Your task to perform on an android device: turn off sleep mode Image 0: 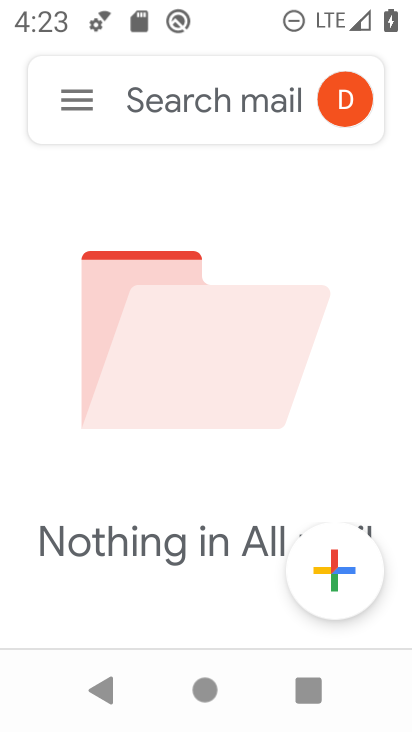
Step 0: press home button
Your task to perform on an android device: turn off sleep mode Image 1: 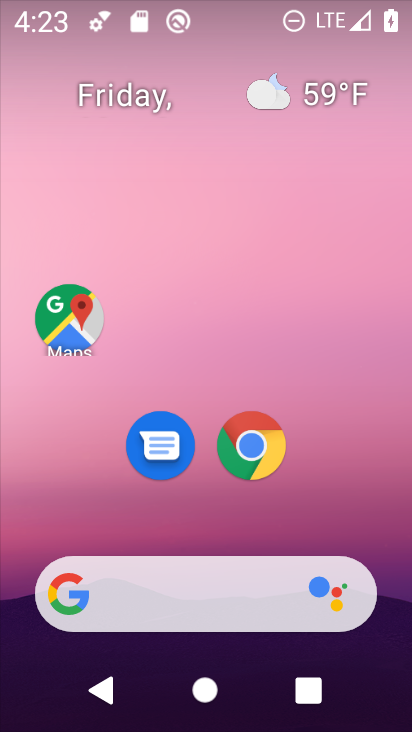
Step 1: click (354, 165)
Your task to perform on an android device: turn off sleep mode Image 2: 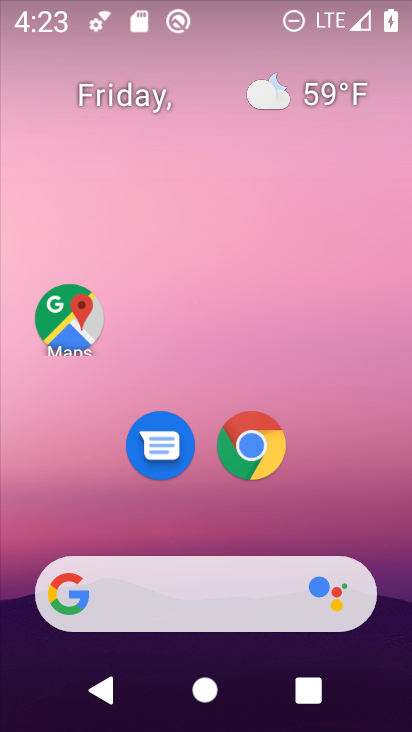
Step 2: drag from (388, 582) to (348, 47)
Your task to perform on an android device: turn off sleep mode Image 3: 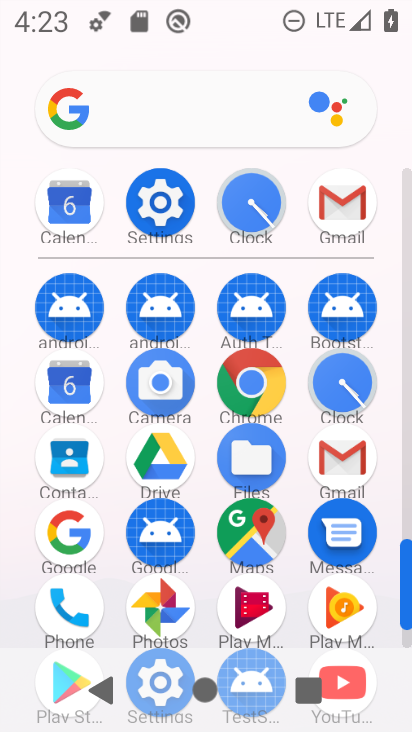
Step 3: drag from (407, 521) to (405, 446)
Your task to perform on an android device: turn off sleep mode Image 4: 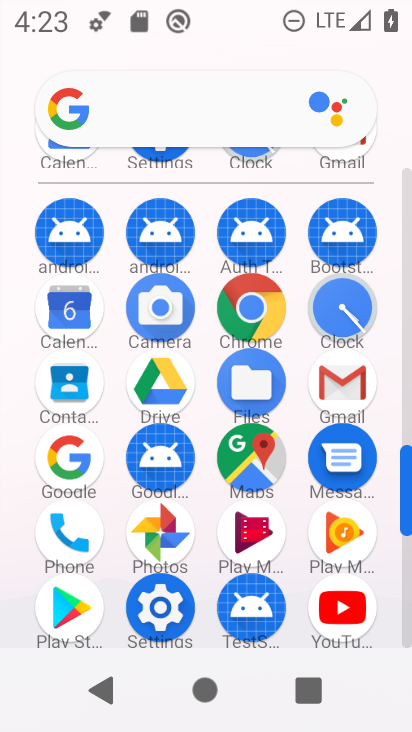
Step 4: click (160, 609)
Your task to perform on an android device: turn off sleep mode Image 5: 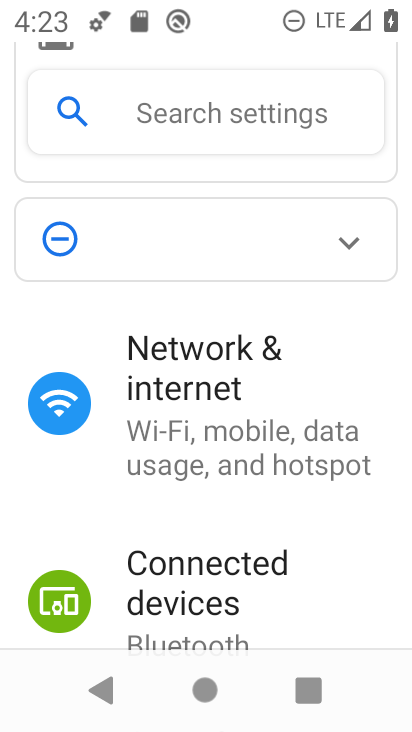
Step 5: drag from (364, 586) to (353, 227)
Your task to perform on an android device: turn off sleep mode Image 6: 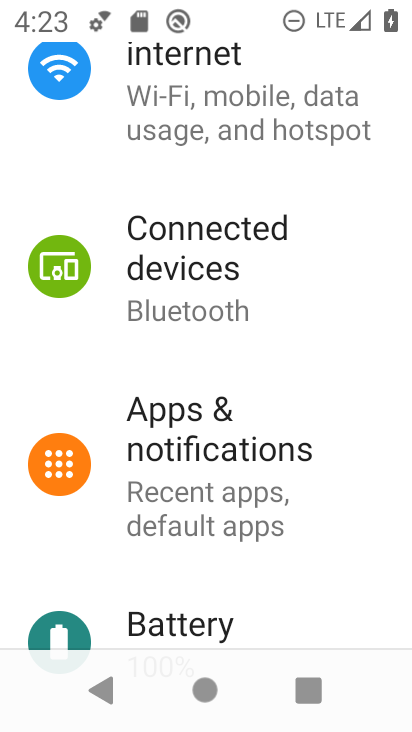
Step 6: drag from (337, 565) to (331, 185)
Your task to perform on an android device: turn off sleep mode Image 7: 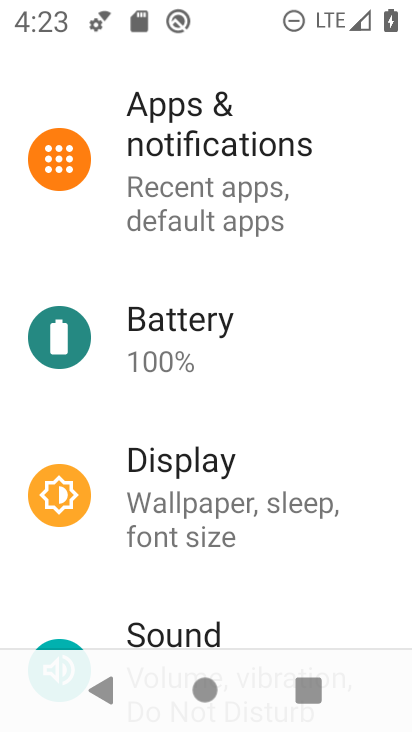
Step 7: click (160, 510)
Your task to perform on an android device: turn off sleep mode Image 8: 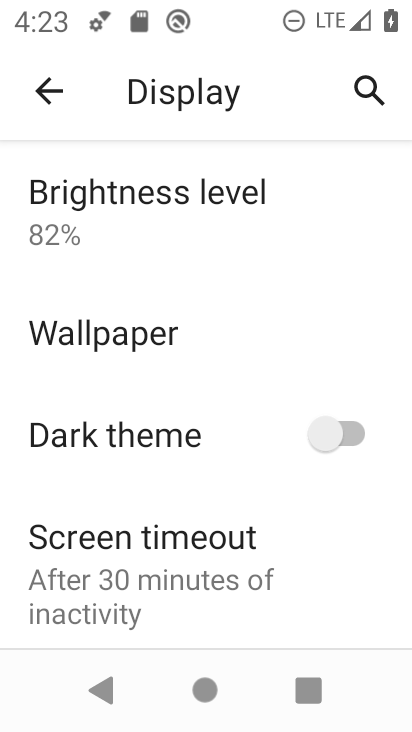
Step 8: drag from (269, 570) to (237, 261)
Your task to perform on an android device: turn off sleep mode Image 9: 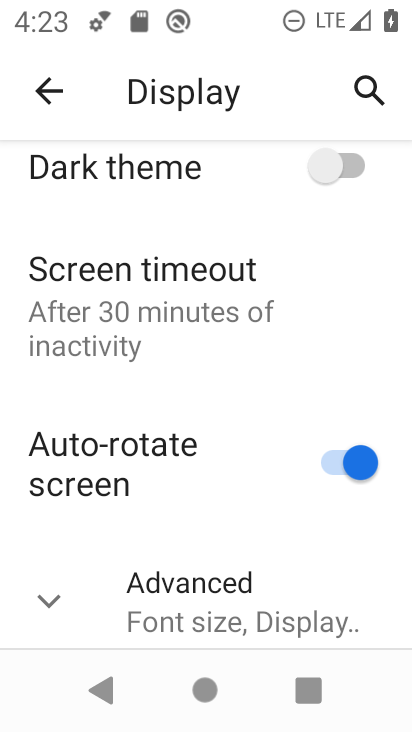
Step 9: click (42, 599)
Your task to perform on an android device: turn off sleep mode Image 10: 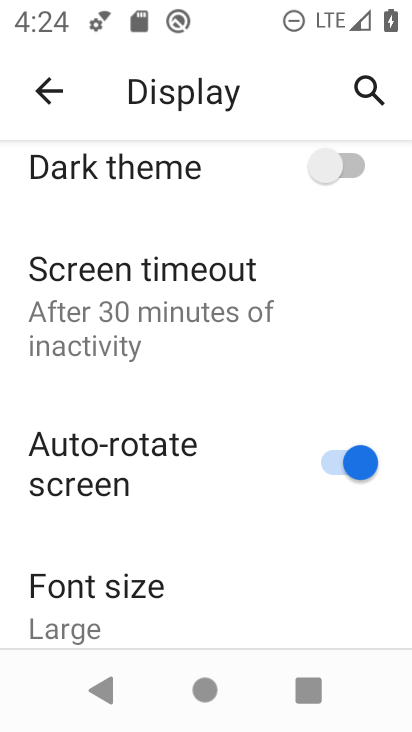
Step 10: task complete